Your task to perform on an android device: Open ESPN.com Image 0: 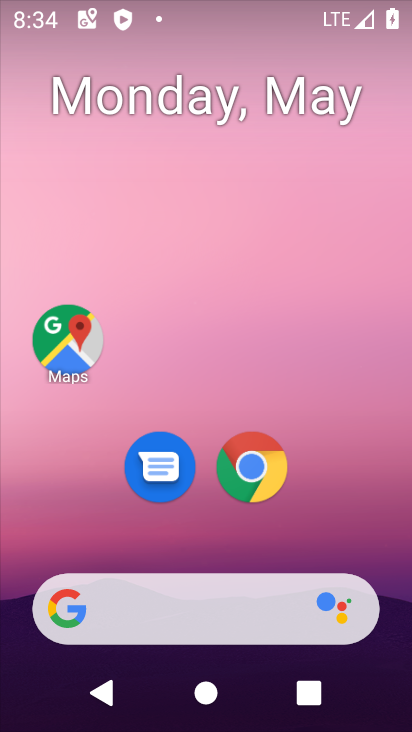
Step 0: click (259, 474)
Your task to perform on an android device: Open ESPN.com Image 1: 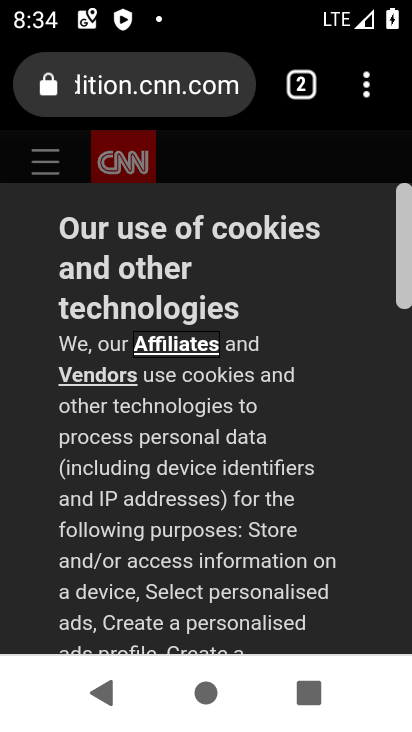
Step 1: click (296, 92)
Your task to perform on an android device: Open ESPN.com Image 2: 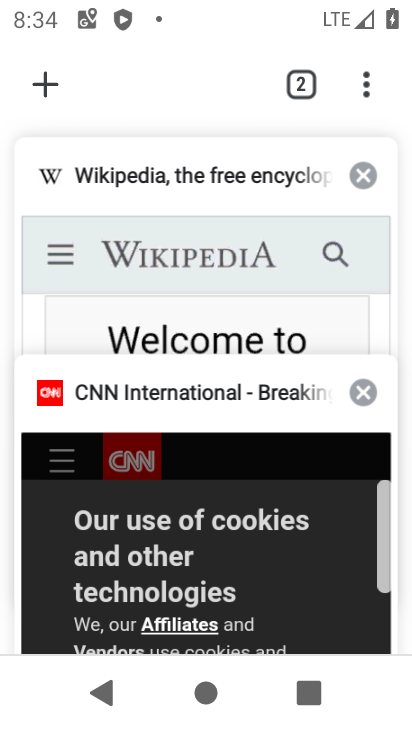
Step 2: click (40, 86)
Your task to perform on an android device: Open ESPN.com Image 3: 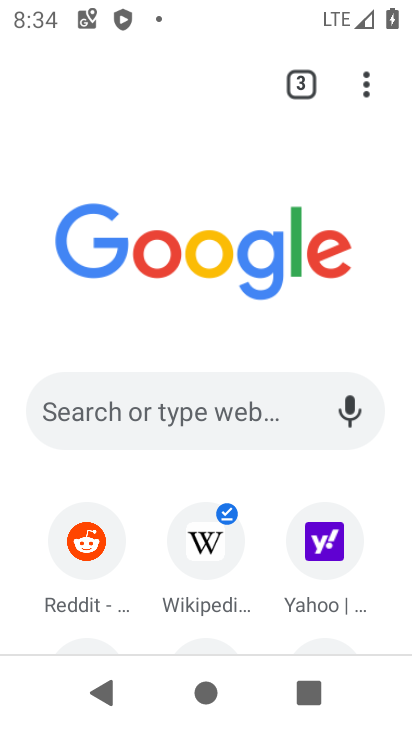
Step 3: drag from (257, 576) to (250, 298)
Your task to perform on an android device: Open ESPN.com Image 4: 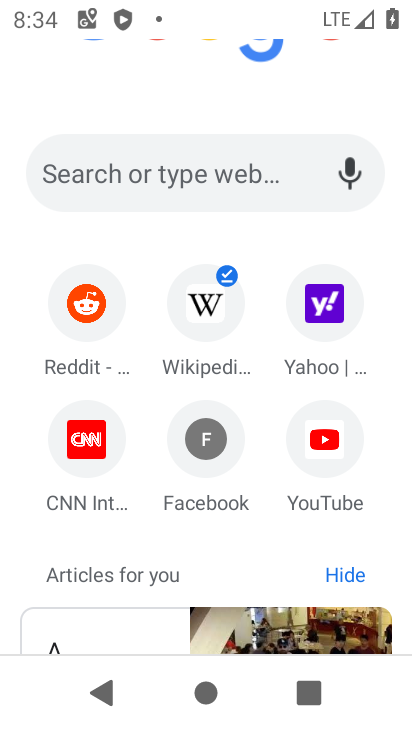
Step 4: click (190, 159)
Your task to perform on an android device: Open ESPN.com Image 5: 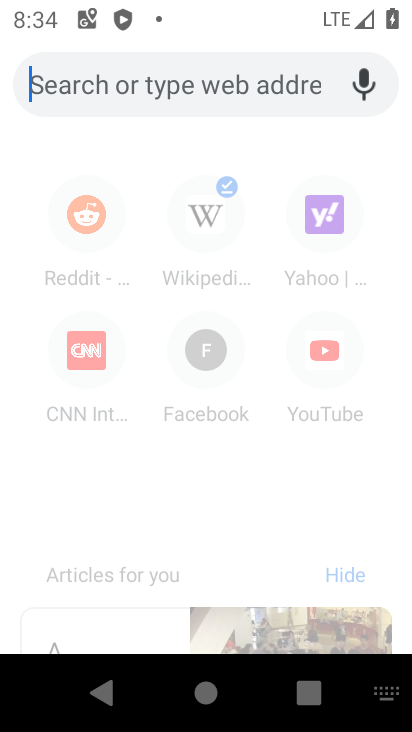
Step 5: type "ESPN.com"
Your task to perform on an android device: Open ESPN.com Image 6: 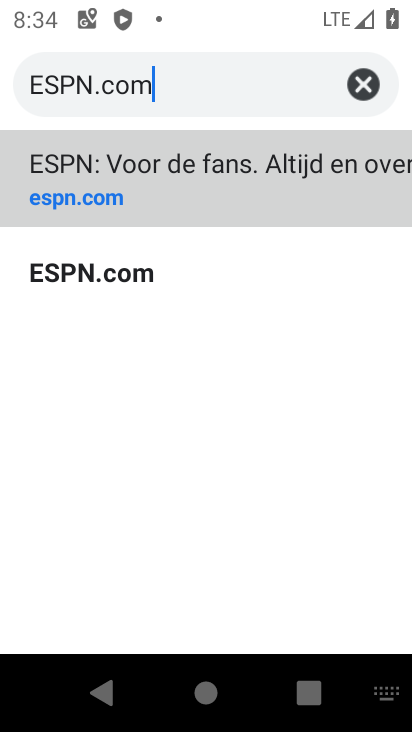
Step 6: click (126, 202)
Your task to perform on an android device: Open ESPN.com Image 7: 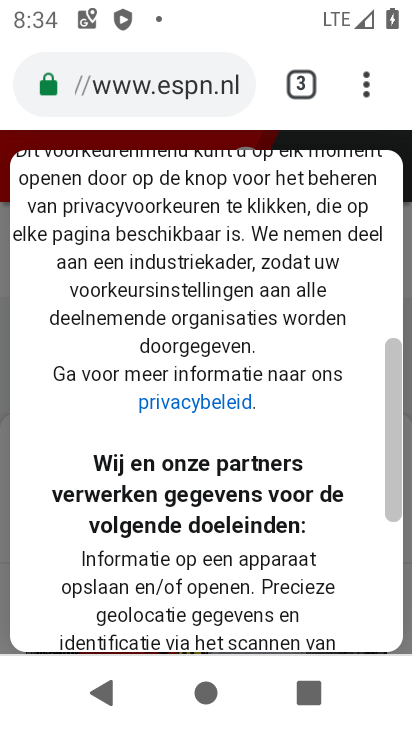
Step 7: task complete